Your task to perform on an android device: turn pop-ups on in chrome Image 0: 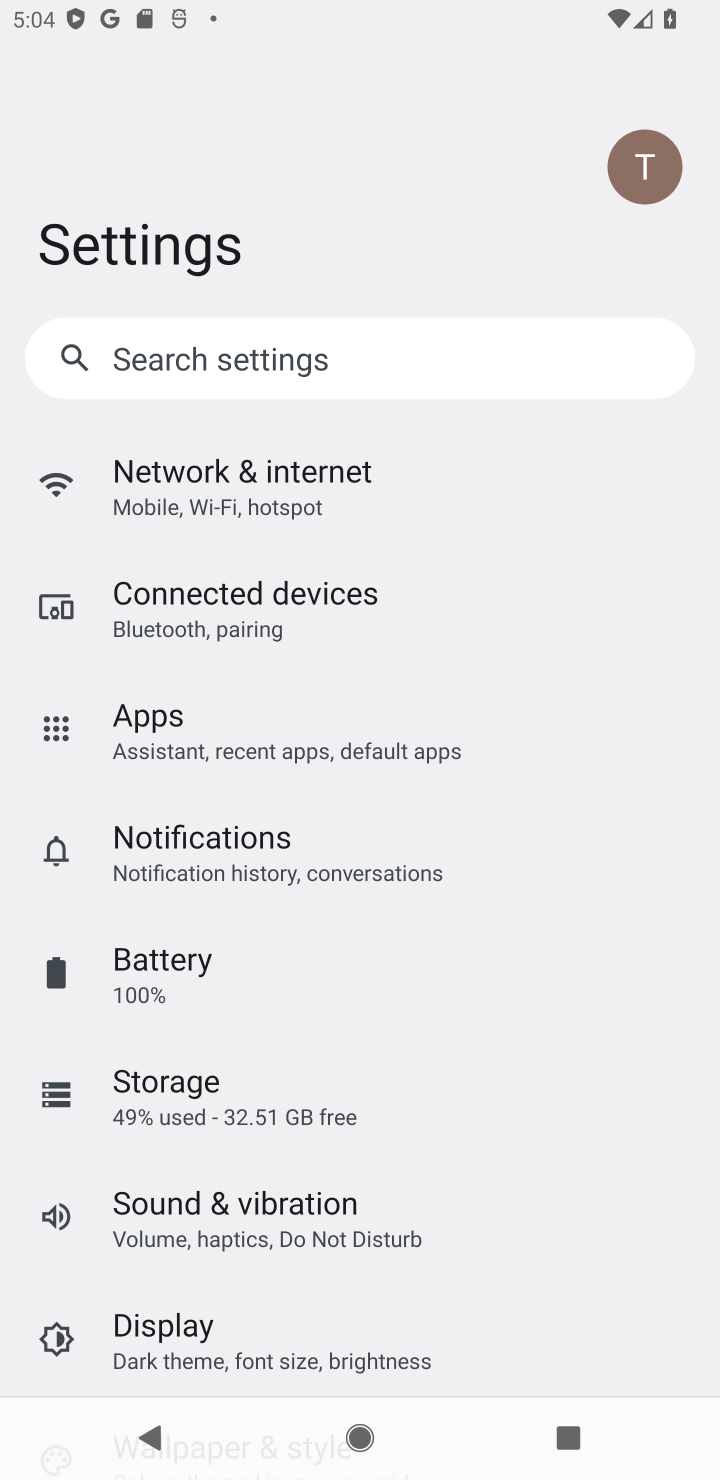
Step 0: press home button
Your task to perform on an android device: turn pop-ups on in chrome Image 1: 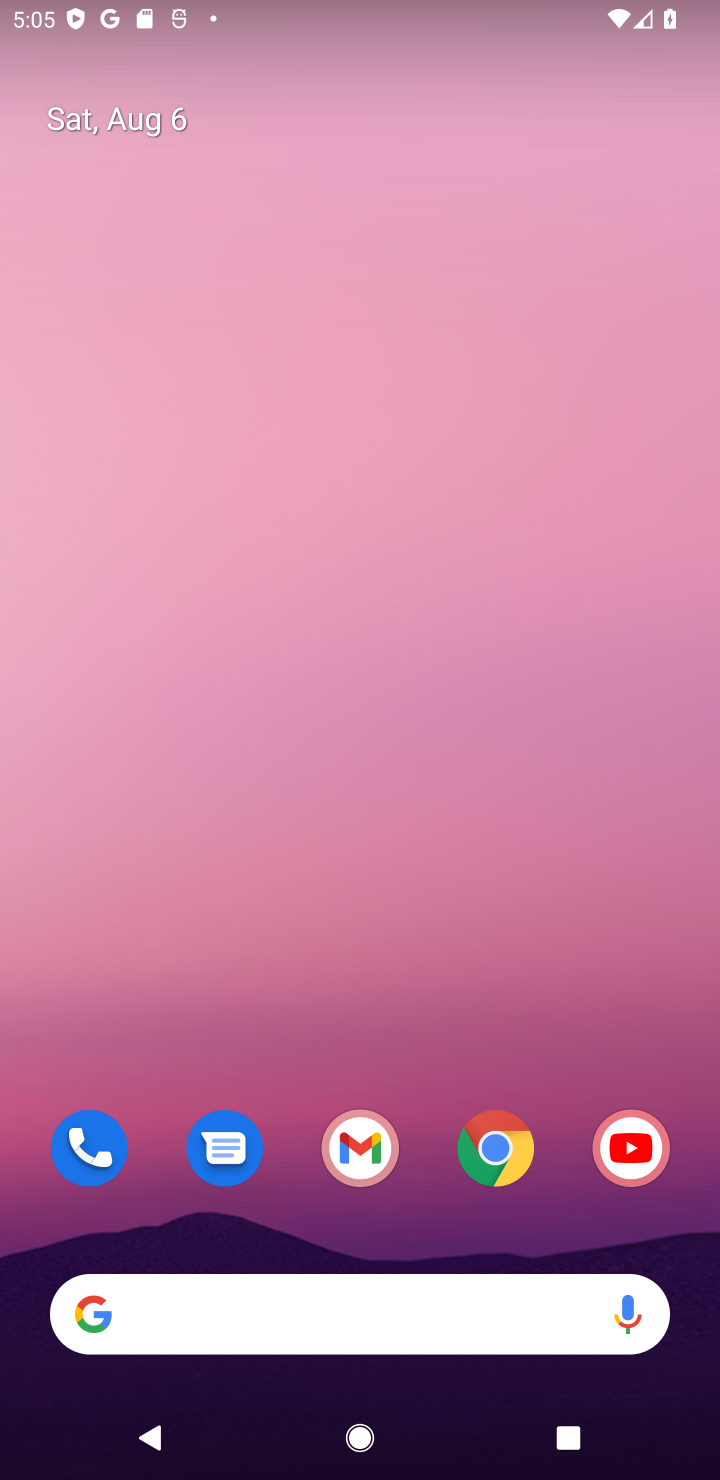
Step 1: drag from (353, 1207) to (247, 164)
Your task to perform on an android device: turn pop-ups on in chrome Image 2: 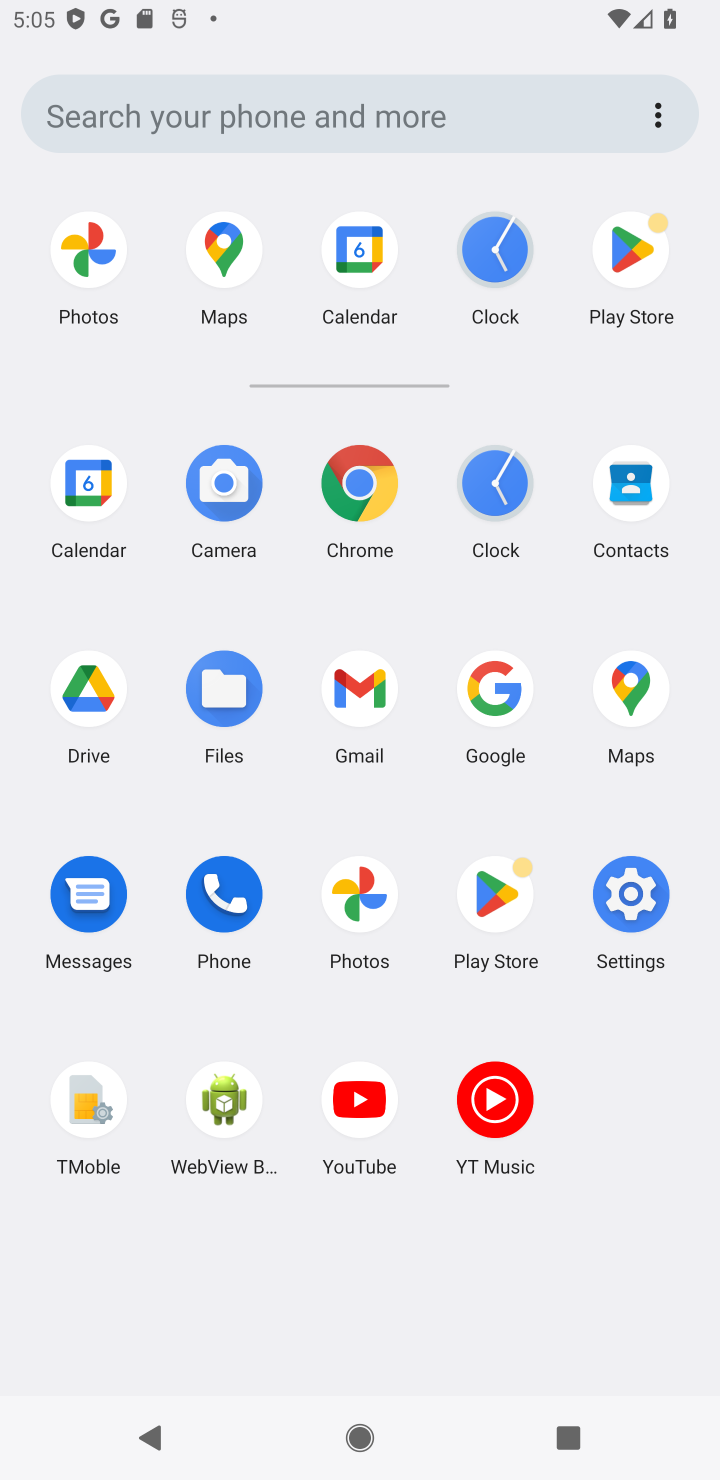
Step 2: click (366, 487)
Your task to perform on an android device: turn pop-ups on in chrome Image 3: 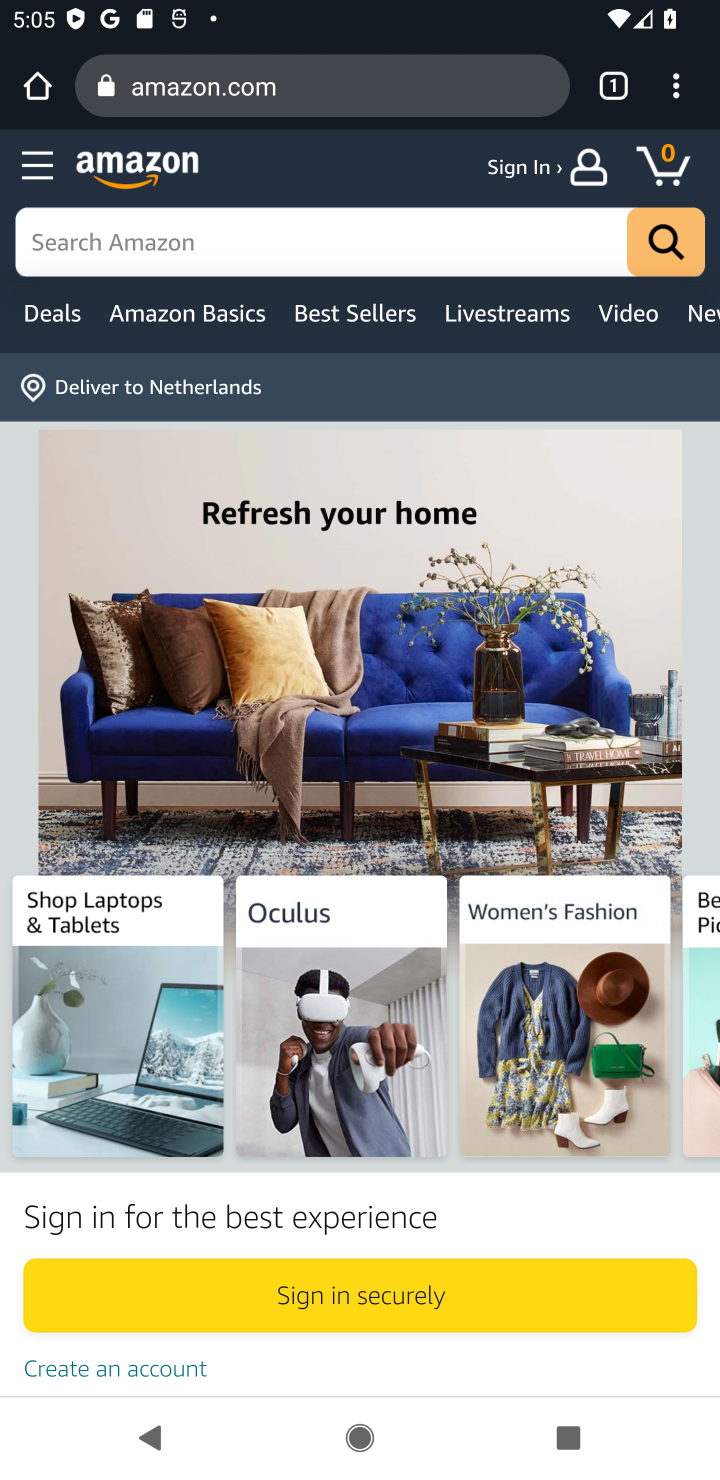
Step 3: click (660, 91)
Your task to perform on an android device: turn pop-ups on in chrome Image 4: 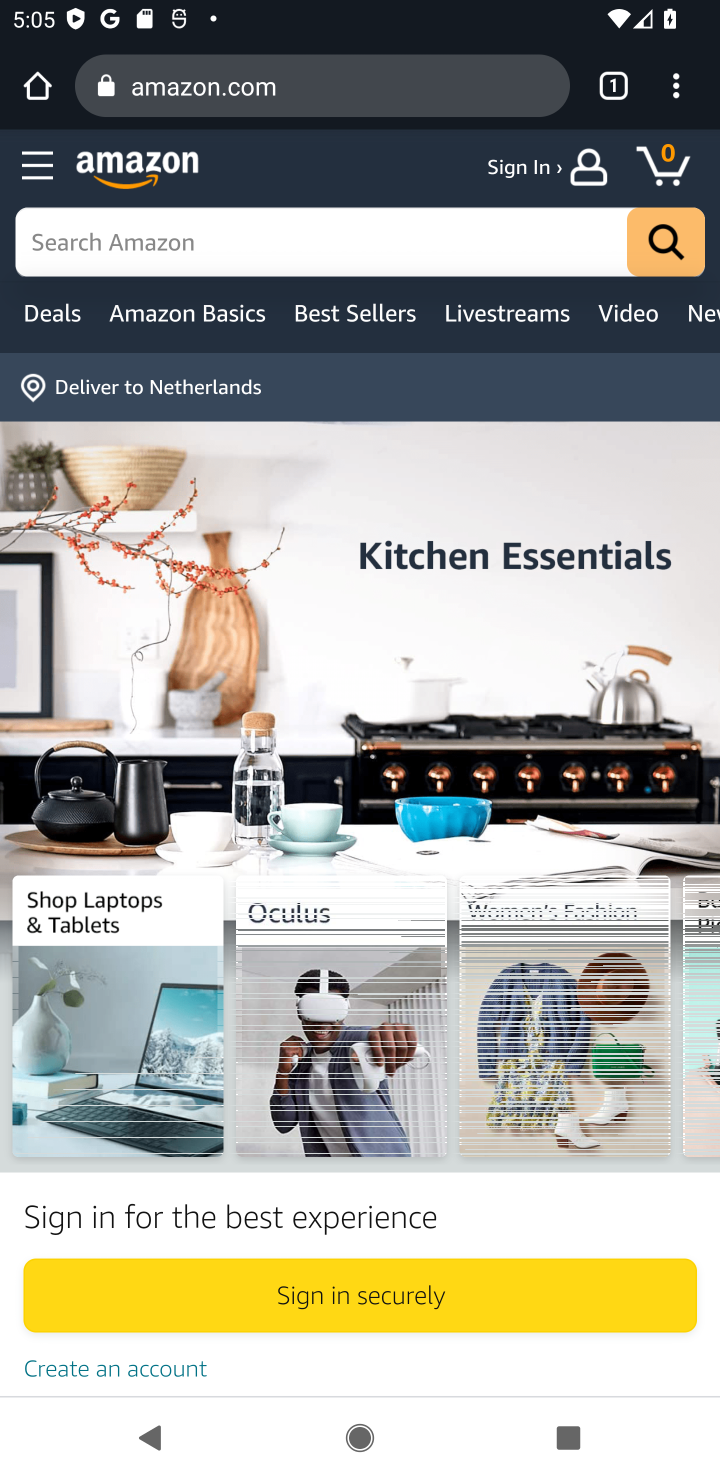
Step 4: click (668, 92)
Your task to perform on an android device: turn pop-ups on in chrome Image 5: 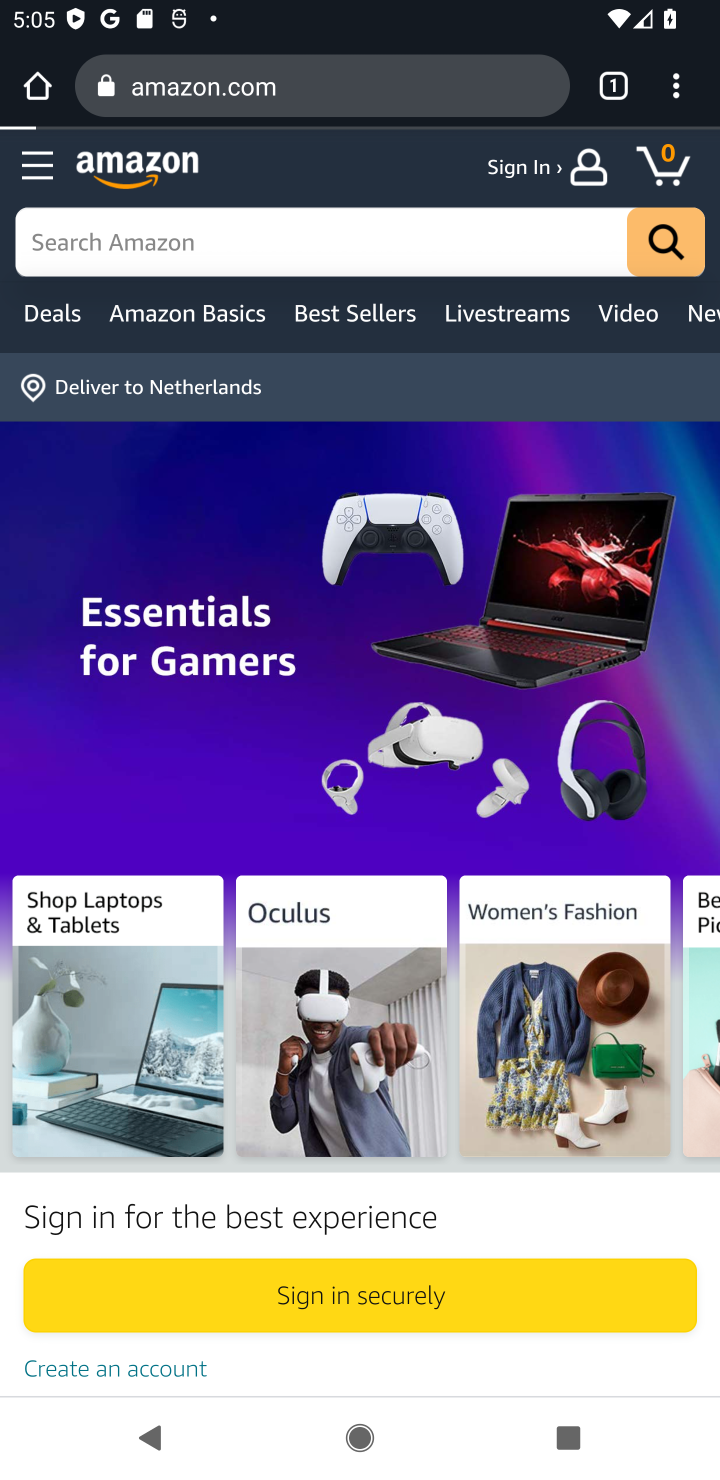
Step 5: drag from (668, 92) to (452, 1132)
Your task to perform on an android device: turn pop-ups on in chrome Image 6: 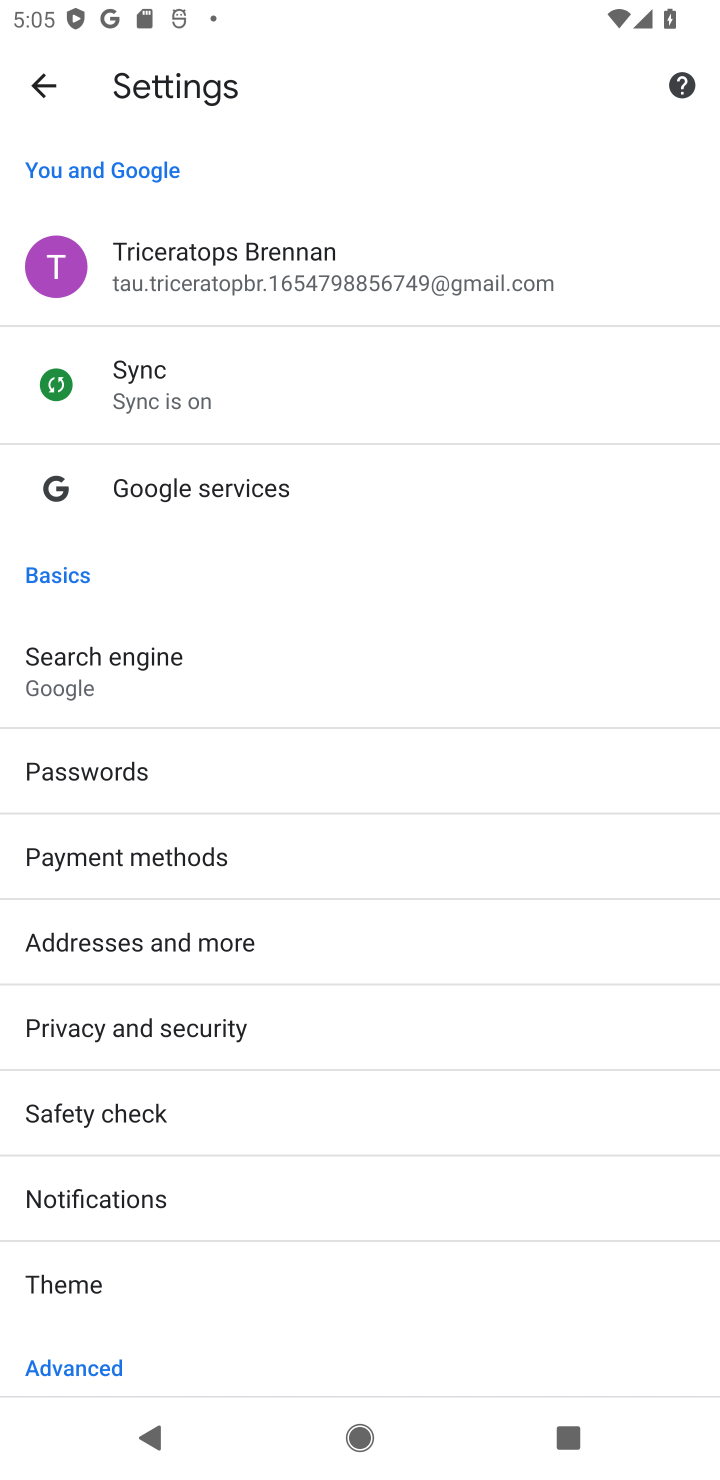
Step 6: drag from (206, 1258) to (108, 81)
Your task to perform on an android device: turn pop-ups on in chrome Image 7: 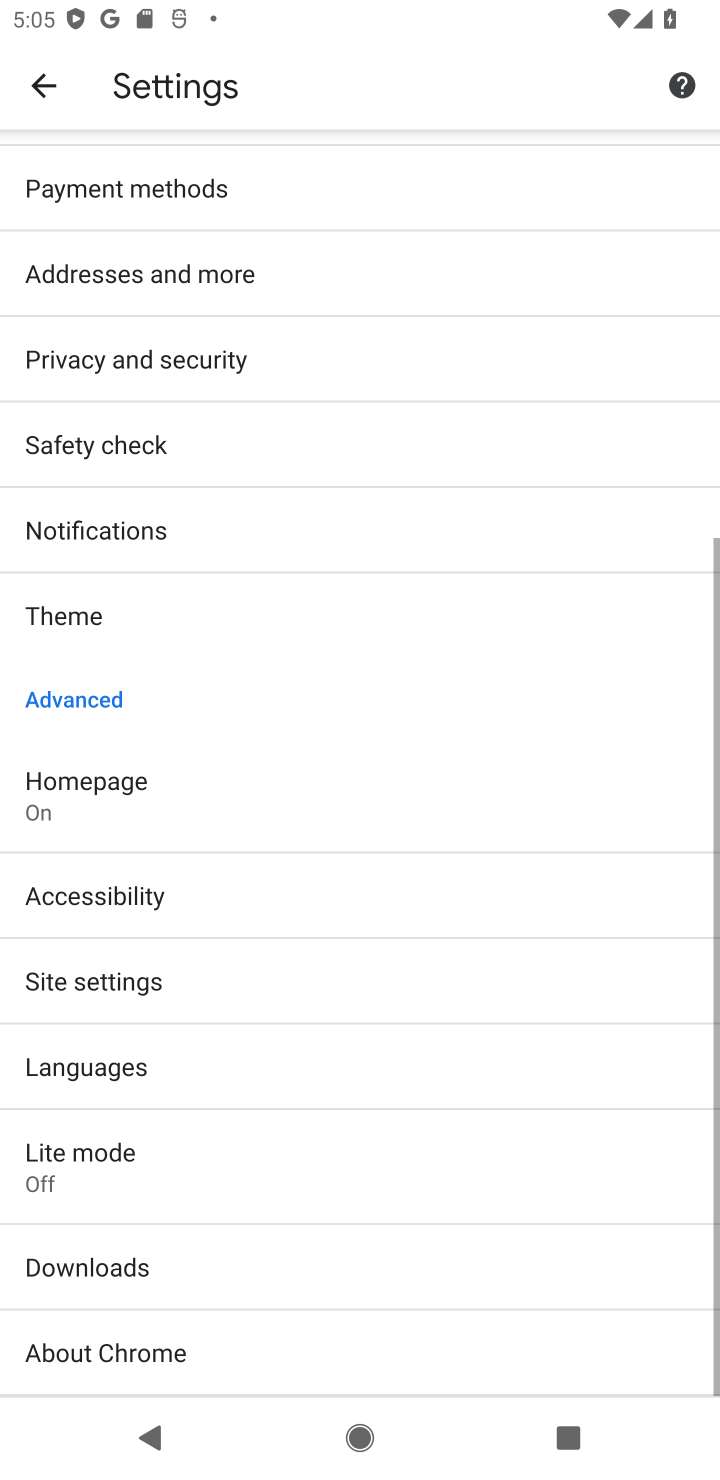
Step 7: click (170, 997)
Your task to perform on an android device: turn pop-ups on in chrome Image 8: 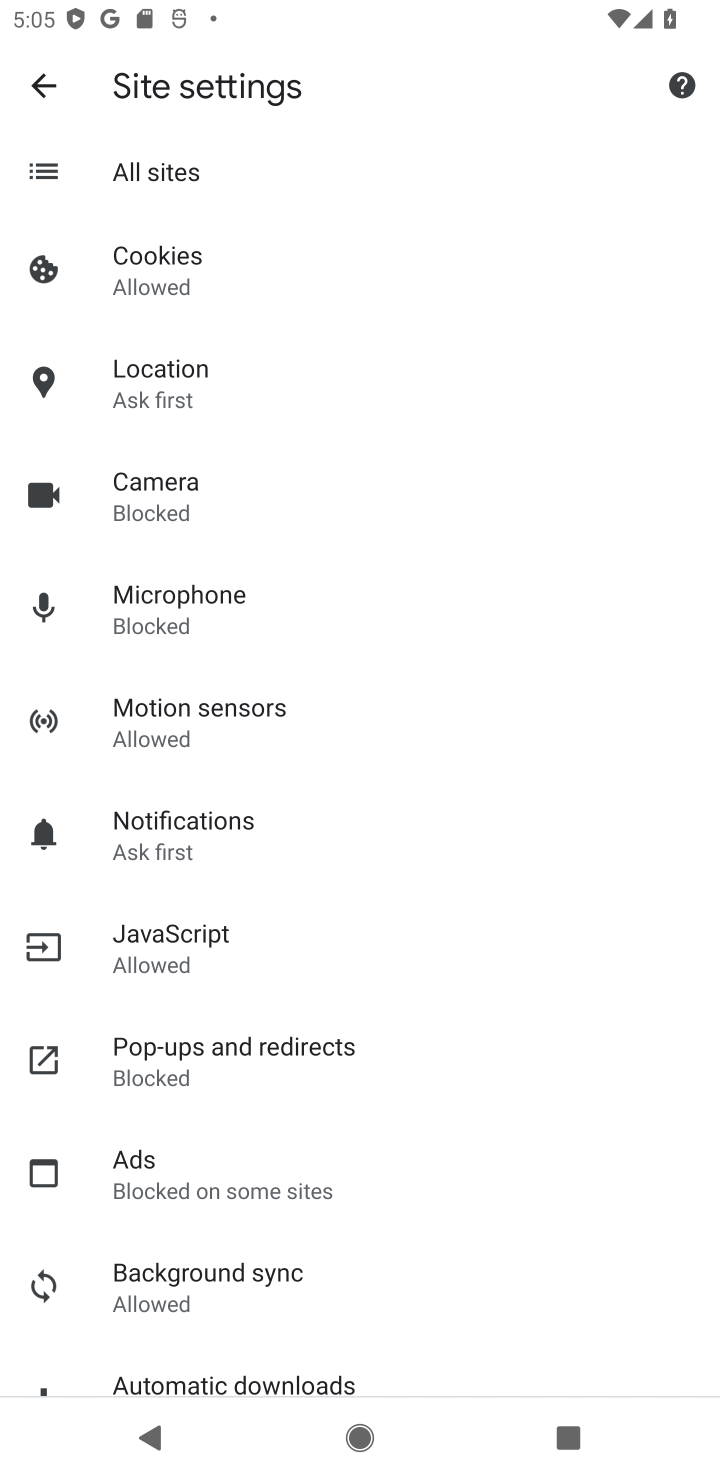
Step 8: click (277, 1033)
Your task to perform on an android device: turn pop-ups on in chrome Image 9: 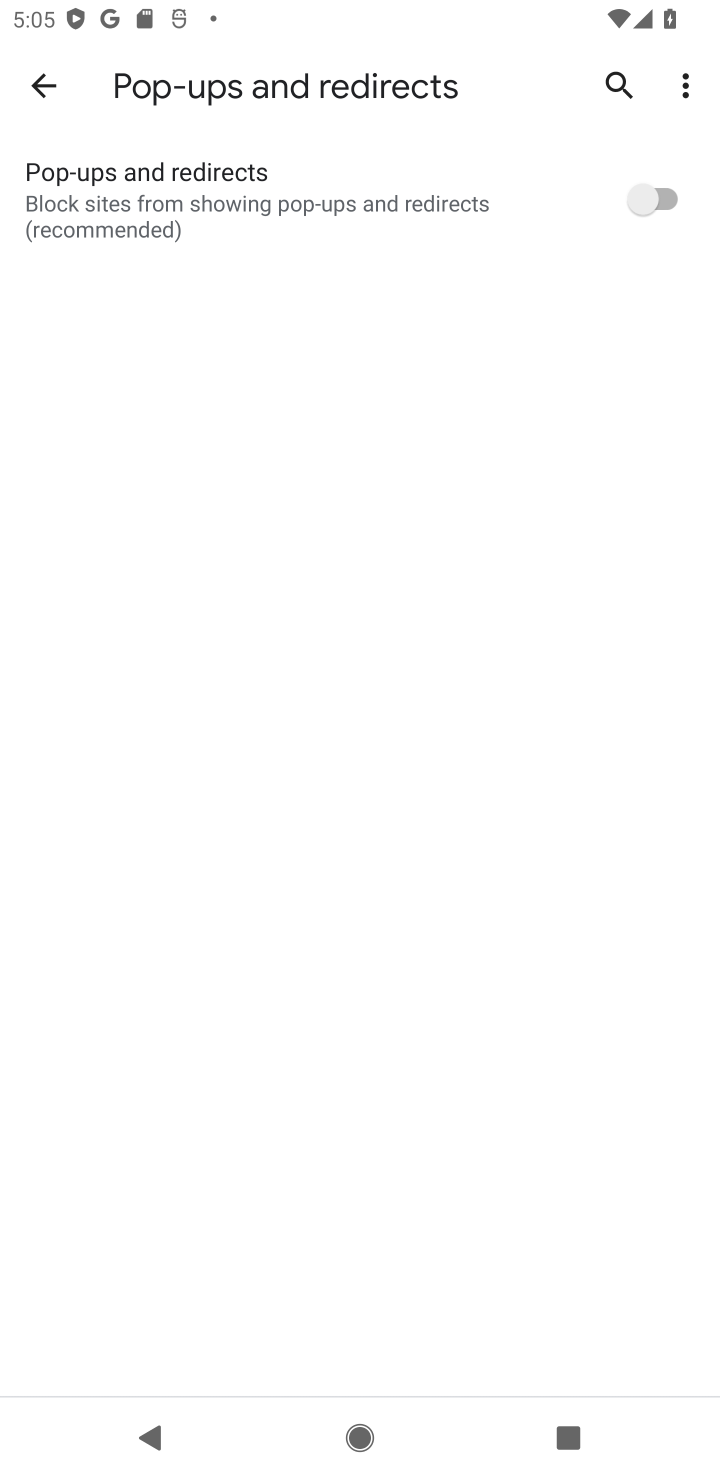
Step 9: click (651, 180)
Your task to perform on an android device: turn pop-ups on in chrome Image 10: 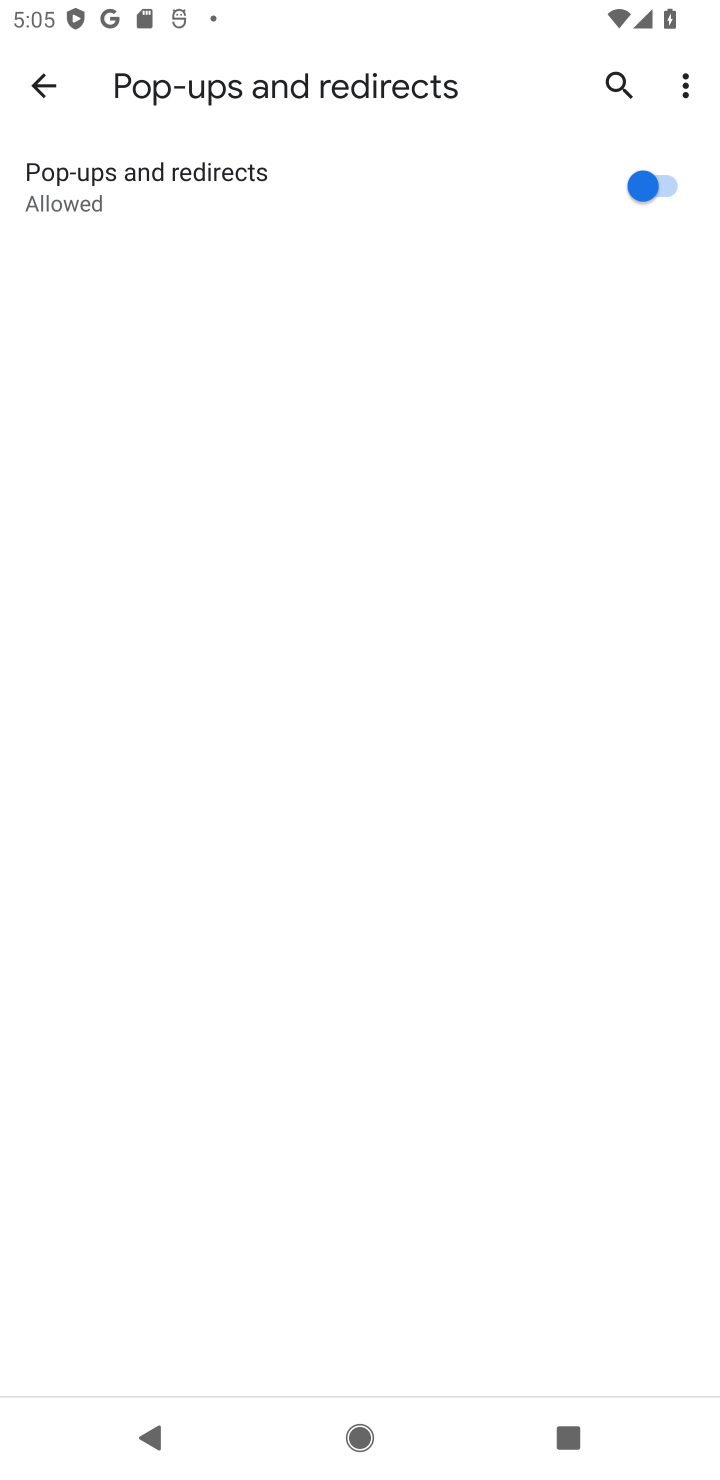
Step 10: task complete